Your task to perform on an android device: delete location history Image 0: 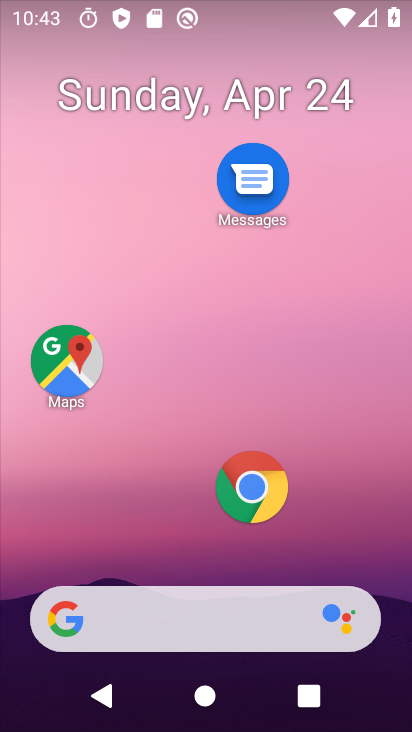
Step 0: drag from (170, 558) to (260, 21)
Your task to perform on an android device: delete location history Image 1: 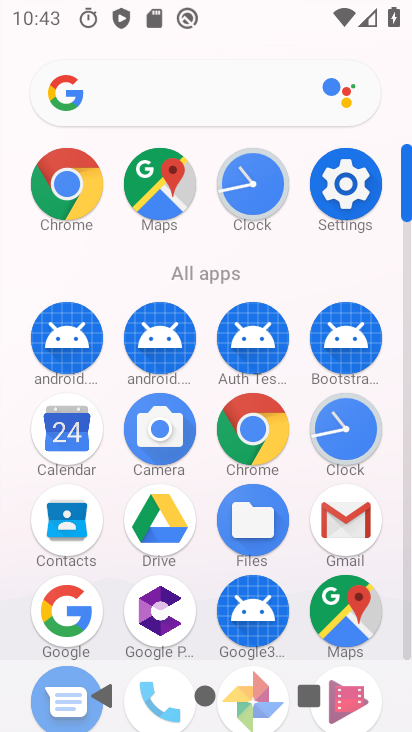
Step 1: click (161, 186)
Your task to perform on an android device: delete location history Image 2: 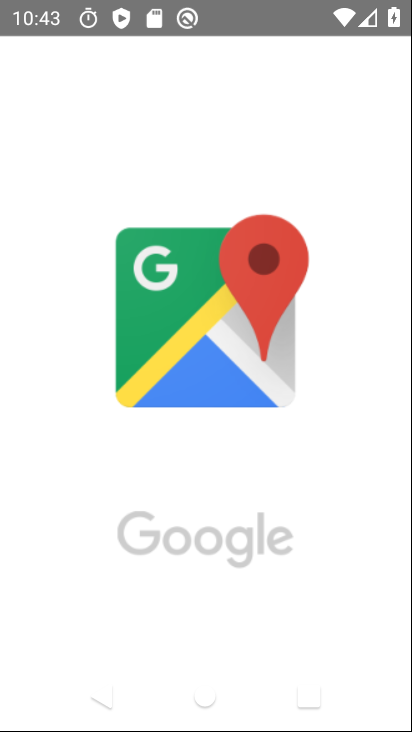
Step 2: click (201, 437)
Your task to perform on an android device: delete location history Image 3: 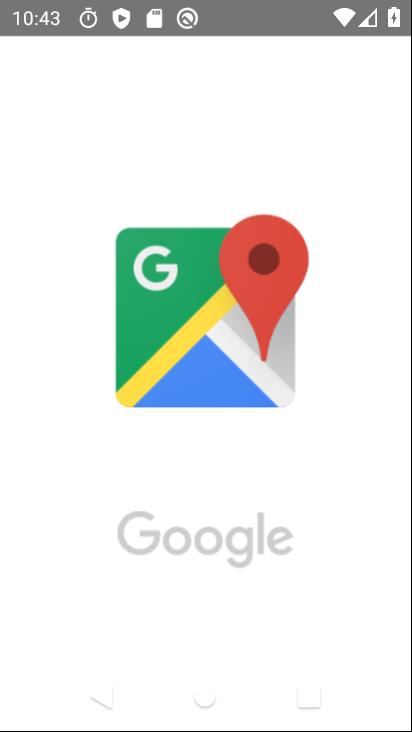
Step 3: task complete